Your task to perform on an android device: What's the weather today? Image 0: 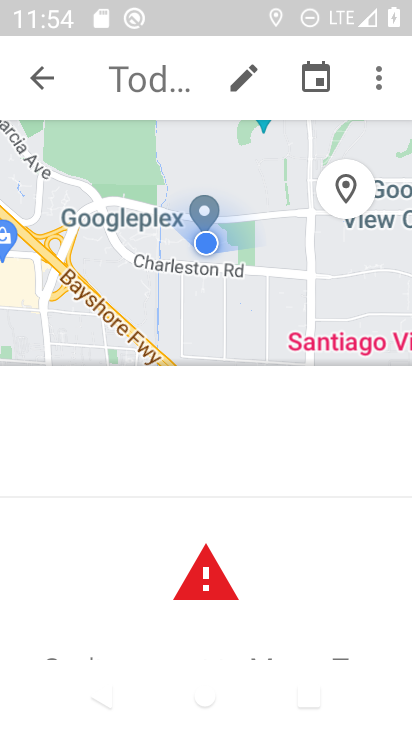
Step 0: press home button
Your task to perform on an android device: What's the weather today? Image 1: 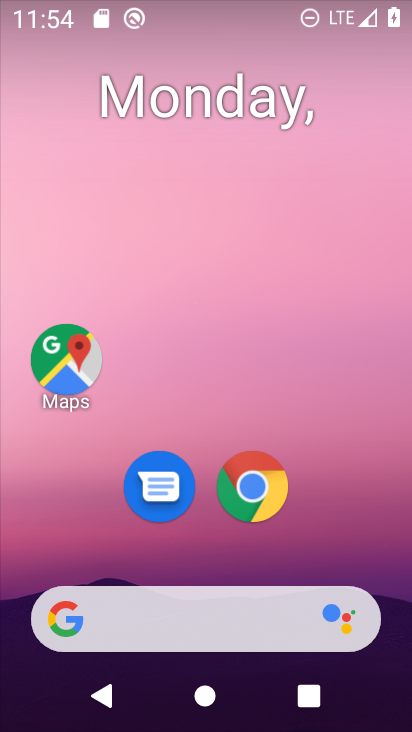
Step 1: click (208, 628)
Your task to perform on an android device: What's the weather today? Image 2: 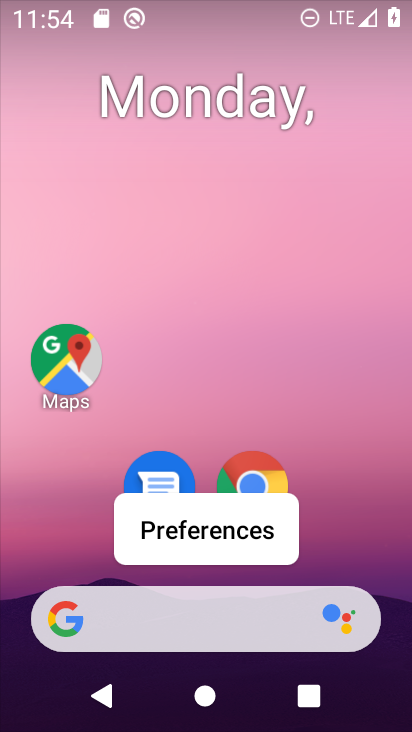
Step 2: click (197, 614)
Your task to perform on an android device: What's the weather today? Image 3: 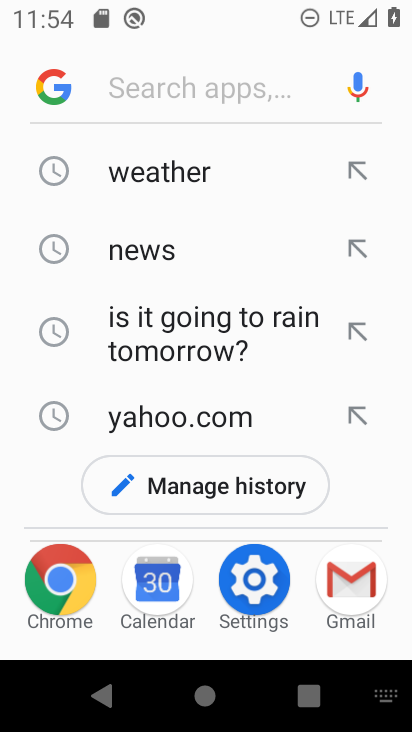
Step 3: click (158, 177)
Your task to perform on an android device: What's the weather today? Image 4: 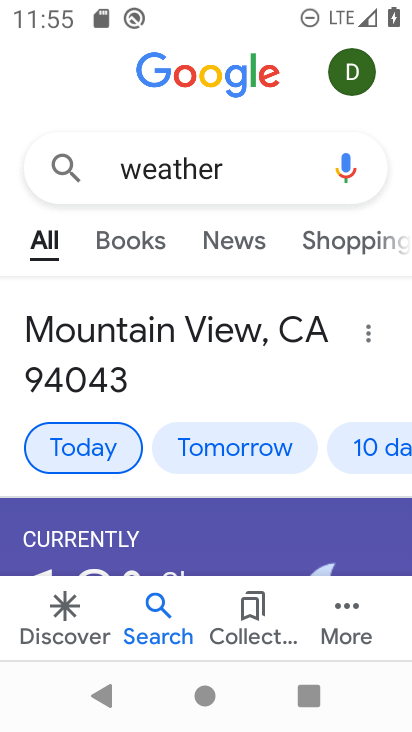
Step 4: task complete